Your task to perform on an android device: Open calendar and show me the first week of next month Image 0: 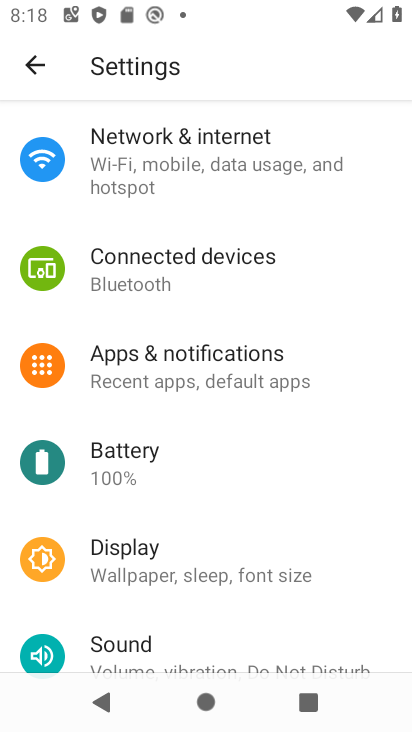
Step 0: press home button
Your task to perform on an android device: Open calendar and show me the first week of next month Image 1: 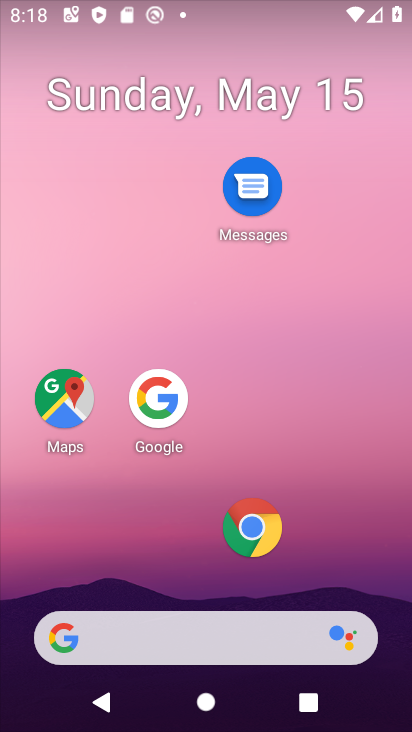
Step 1: drag from (202, 644) to (299, 250)
Your task to perform on an android device: Open calendar and show me the first week of next month Image 2: 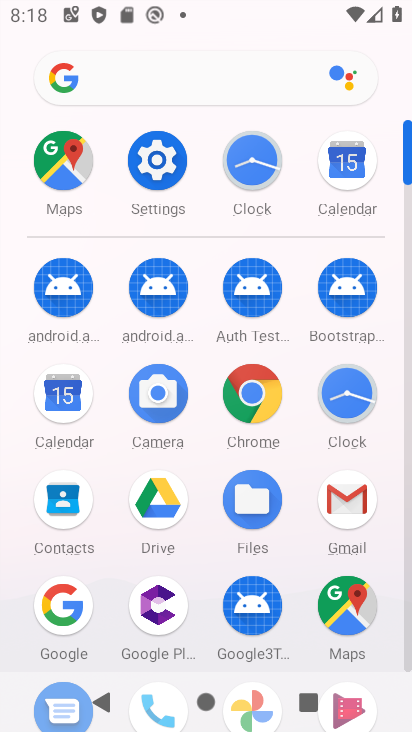
Step 2: click (67, 405)
Your task to perform on an android device: Open calendar and show me the first week of next month Image 3: 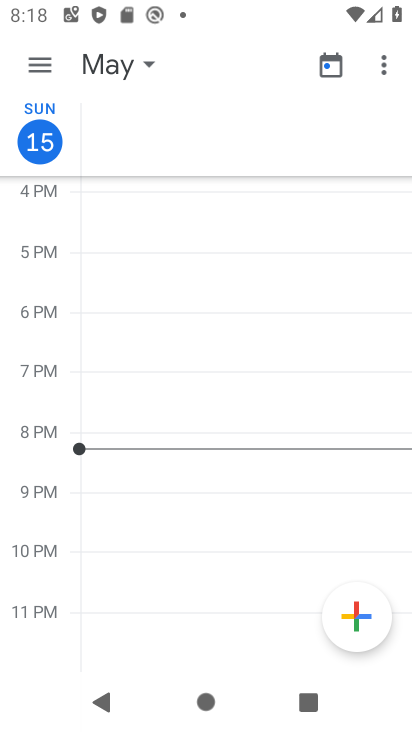
Step 3: click (120, 64)
Your task to perform on an android device: Open calendar and show me the first week of next month Image 4: 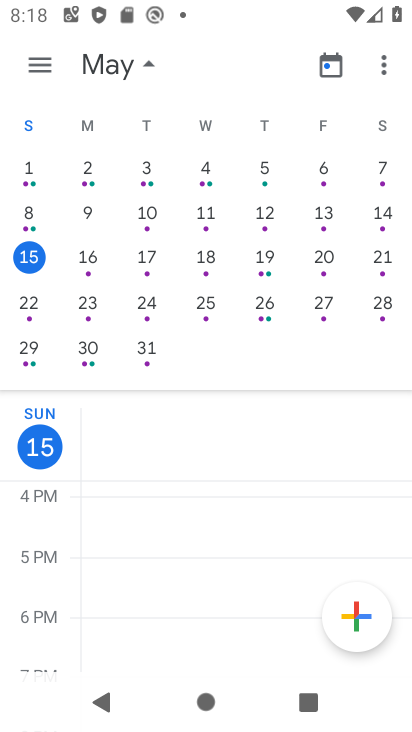
Step 4: drag from (367, 256) to (67, 254)
Your task to perform on an android device: Open calendar and show me the first week of next month Image 5: 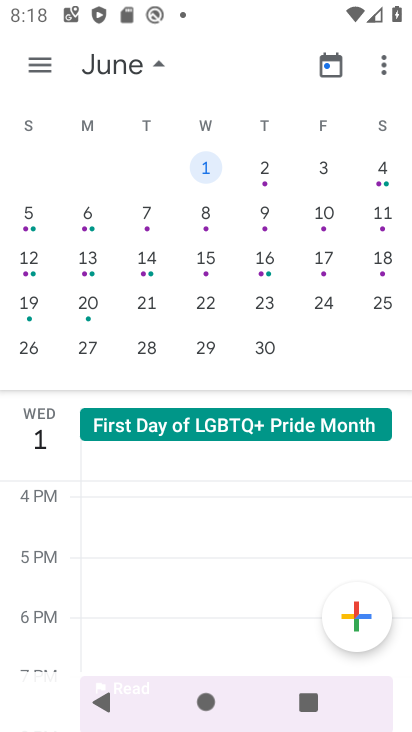
Step 5: click (212, 170)
Your task to perform on an android device: Open calendar and show me the first week of next month Image 6: 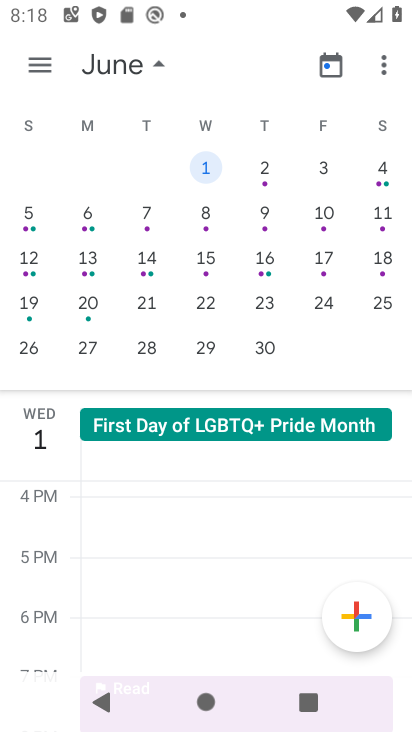
Step 6: click (30, 68)
Your task to perform on an android device: Open calendar and show me the first week of next month Image 7: 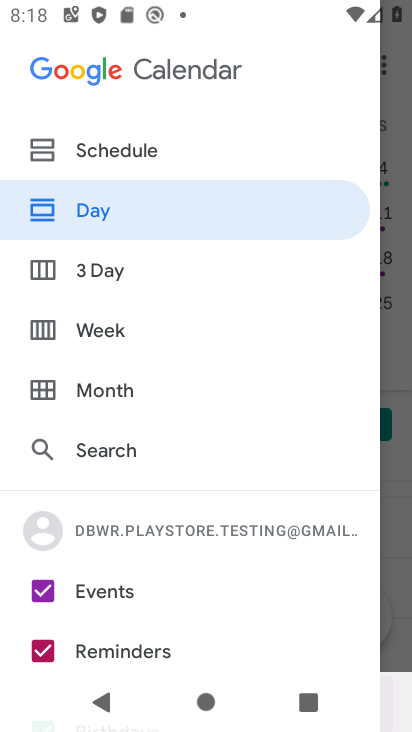
Step 7: click (100, 330)
Your task to perform on an android device: Open calendar and show me the first week of next month Image 8: 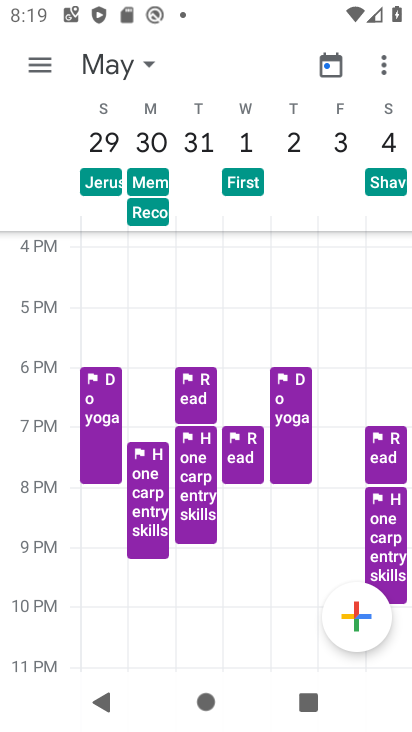
Step 8: task complete